Your task to perform on an android device: Go to Reddit.com Image 0: 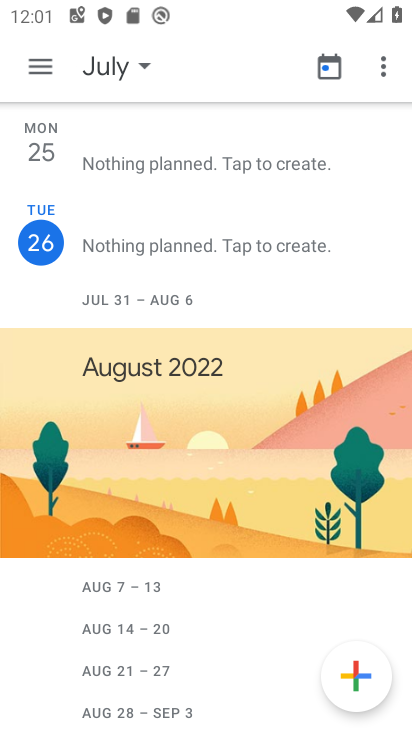
Step 0: press home button
Your task to perform on an android device: Go to Reddit.com Image 1: 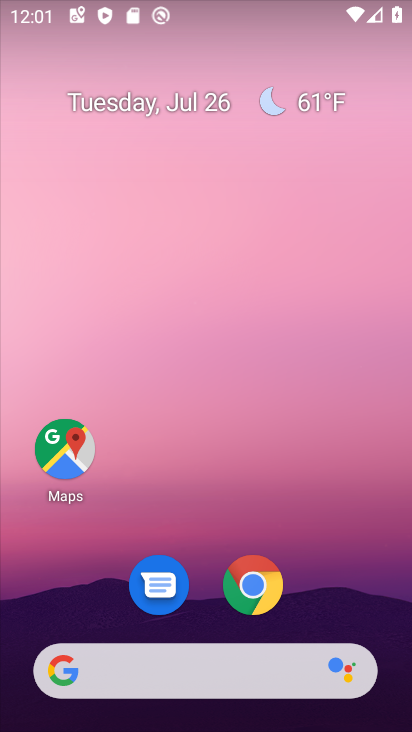
Step 1: click (205, 679)
Your task to perform on an android device: Go to Reddit.com Image 2: 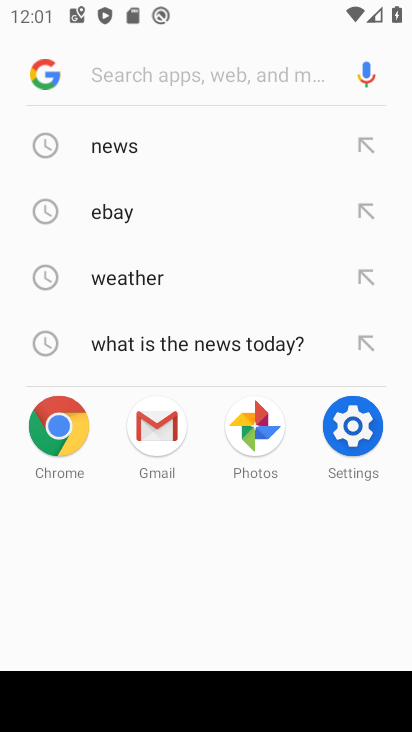
Step 2: type "reddit.com"
Your task to perform on an android device: Go to Reddit.com Image 3: 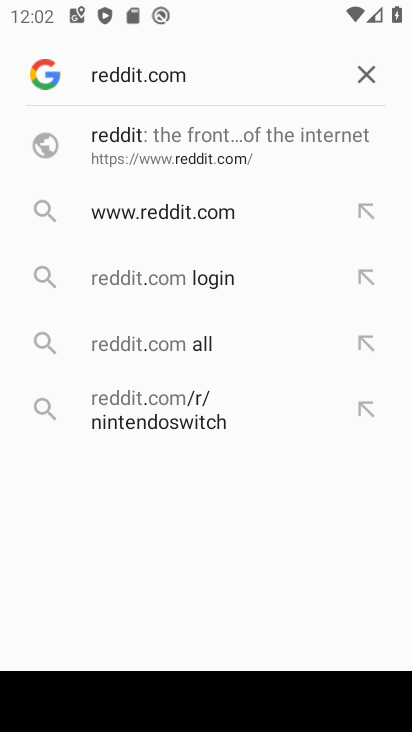
Step 3: click (213, 152)
Your task to perform on an android device: Go to Reddit.com Image 4: 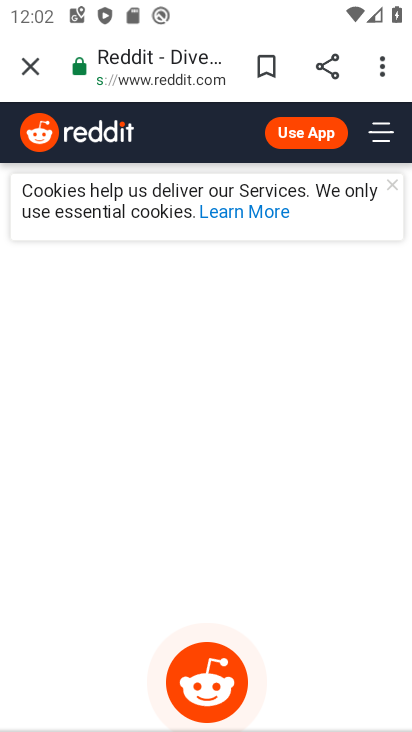
Step 4: task complete